Your task to perform on an android device: Go to display settings Image 0: 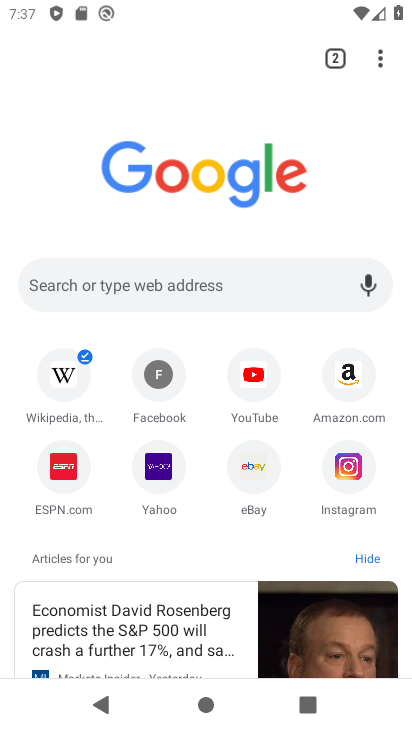
Step 0: press home button
Your task to perform on an android device: Go to display settings Image 1: 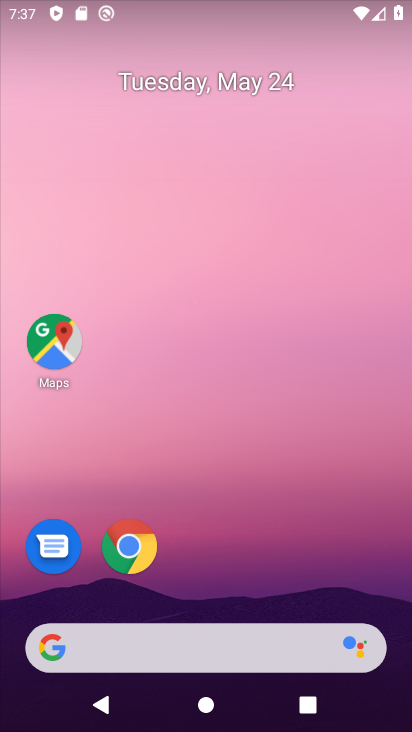
Step 1: drag from (243, 546) to (295, 0)
Your task to perform on an android device: Go to display settings Image 2: 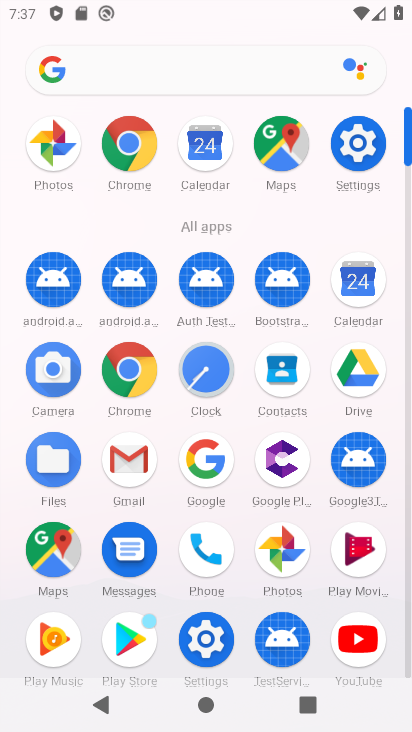
Step 2: click (355, 136)
Your task to perform on an android device: Go to display settings Image 3: 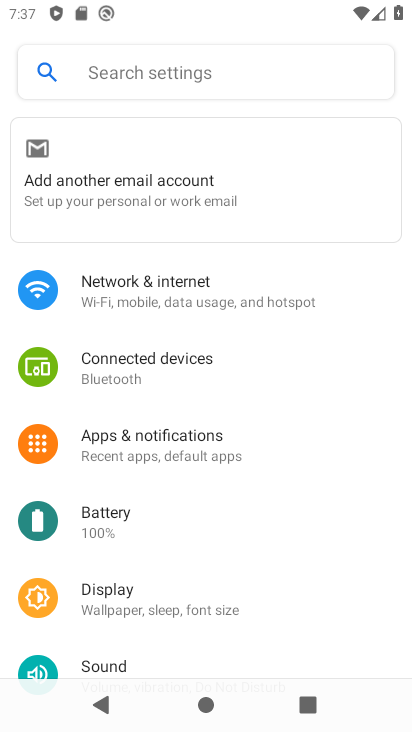
Step 3: click (176, 585)
Your task to perform on an android device: Go to display settings Image 4: 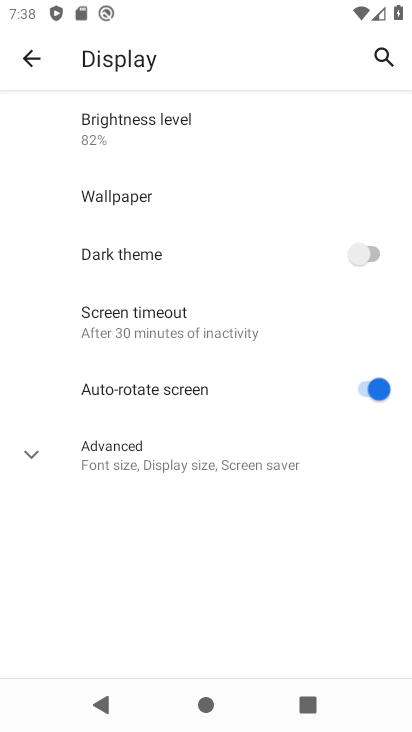
Step 4: task complete